Your task to perform on an android device: turn notification dots off Image 0: 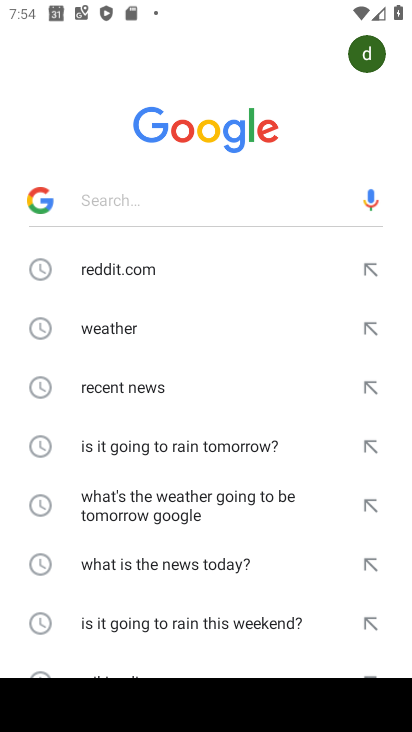
Step 0: press home button
Your task to perform on an android device: turn notification dots off Image 1: 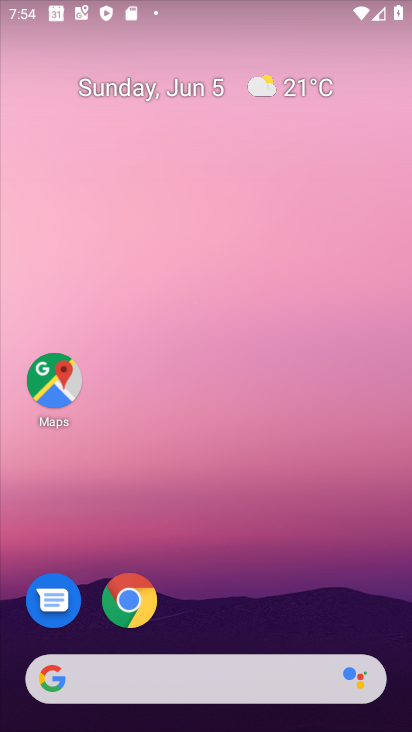
Step 1: drag from (153, 729) to (183, 97)
Your task to perform on an android device: turn notification dots off Image 2: 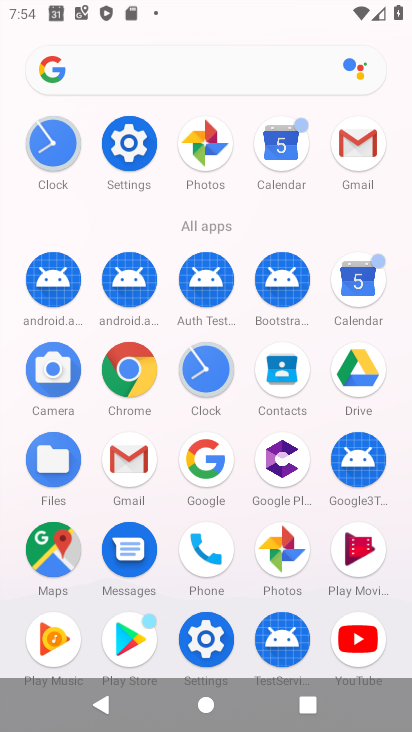
Step 2: click (221, 649)
Your task to perform on an android device: turn notification dots off Image 3: 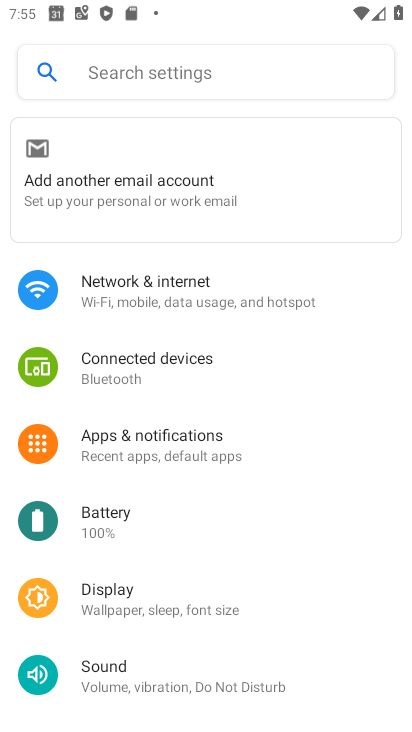
Step 3: click (174, 447)
Your task to perform on an android device: turn notification dots off Image 4: 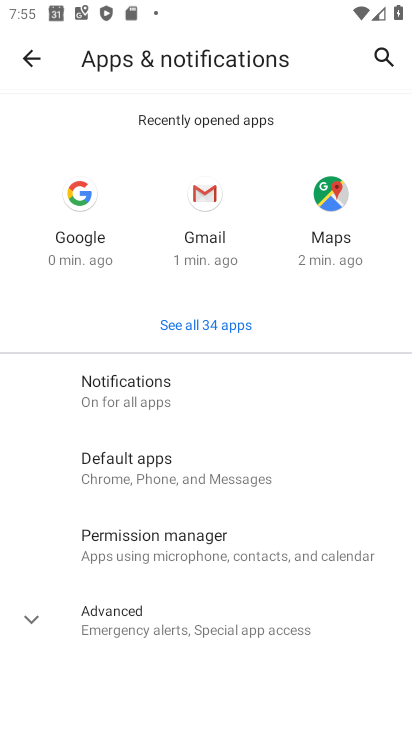
Step 4: click (158, 400)
Your task to perform on an android device: turn notification dots off Image 5: 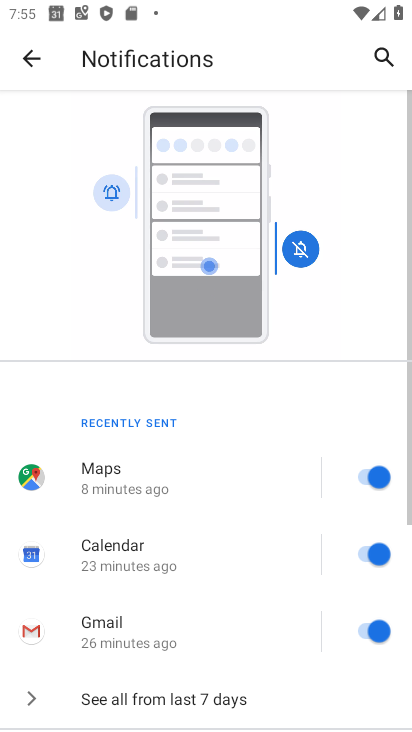
Step 5: drag from (268, 706) to (258, 291)
Your task to perform on an android device: turn notification dots off Image 6: 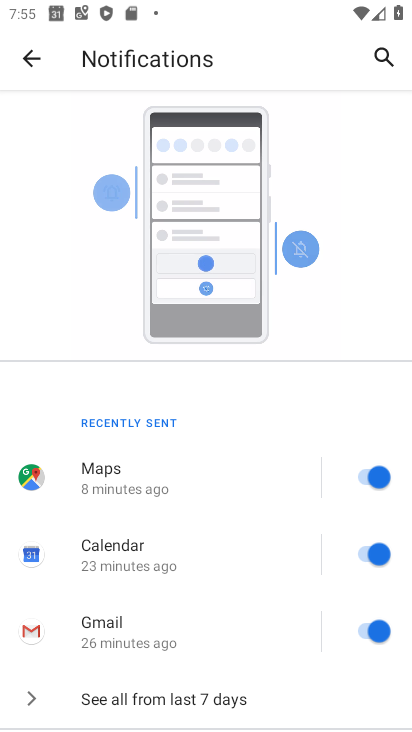
Step 6: drag from (325, 680) to (336, 289)
Your task to perform on an android device: turn notification dots off Image 7: 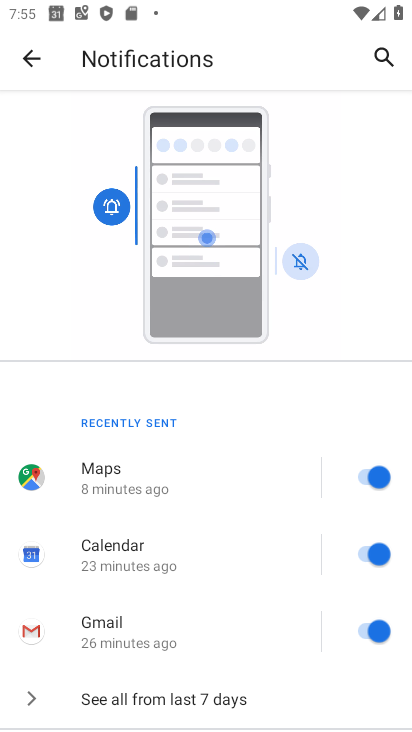
Step 7: drag from (318, 717) to (317, 221)
Your task to perform on an android device: turn notification dots off Image 8: 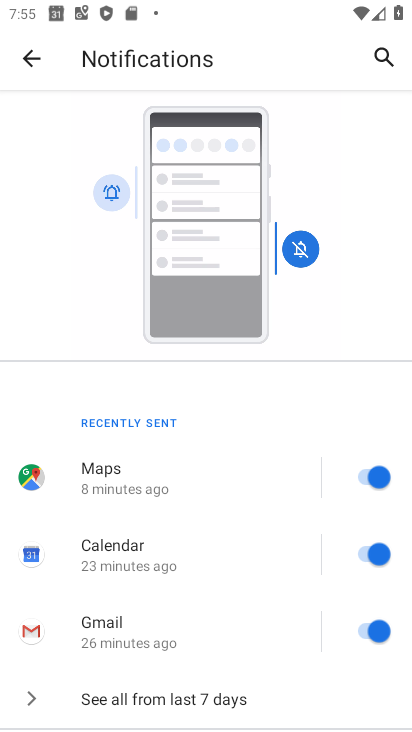
Step 8: drag from (21, 710) to (43, 271)
Your task to perform on an android device: turn notification dots off Image 9: 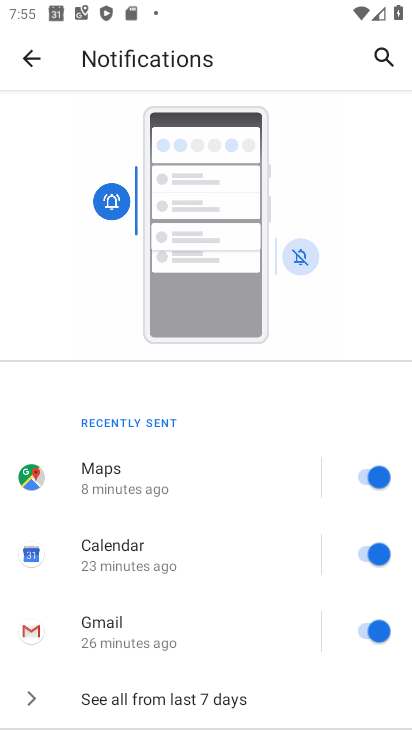
Step 9: drag from (311, 706) to (306, 216)
Your task to perform on an android device: turn notification dots off Image 10: 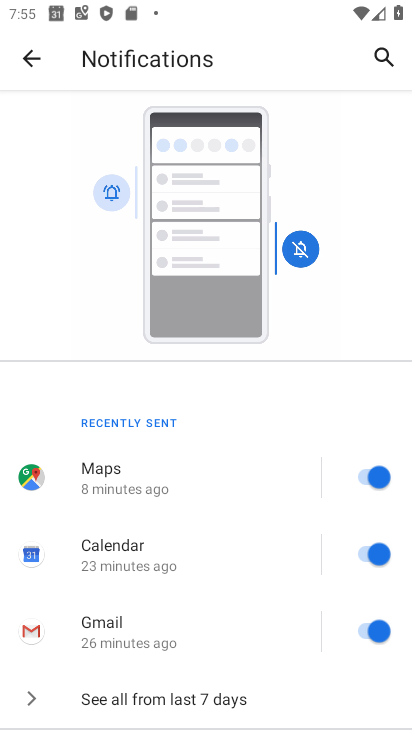
Step 10: drag from (325, 719) to (321, 157)
Your task to perform on an android device: turn notification dots off Image 11: 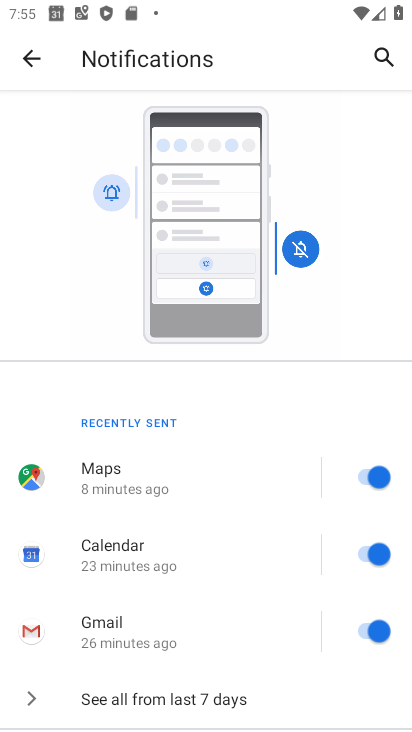
Step 11: drag from (6, 716) to (26, 241)
Your task to perform on an android device: turn notification dots off Image 12: 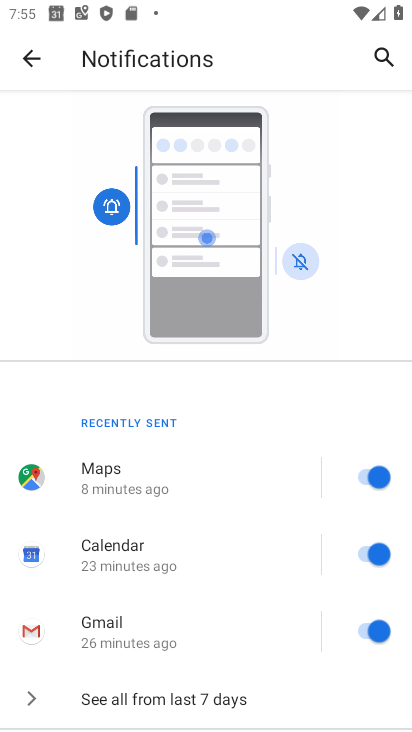
Step 12: drag from (317, 705) to (323, 248)
Your task to perform on an android device: turn notification dots off Image 13: 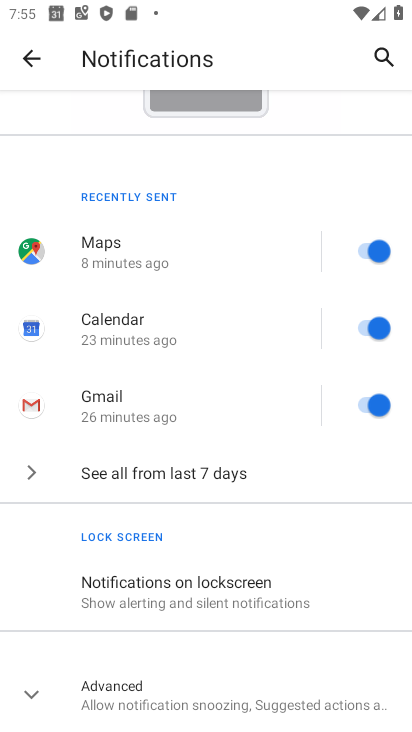
Step 13: click (178, 711)
Your task to perform on an android device: turn notification dots off Image 14: 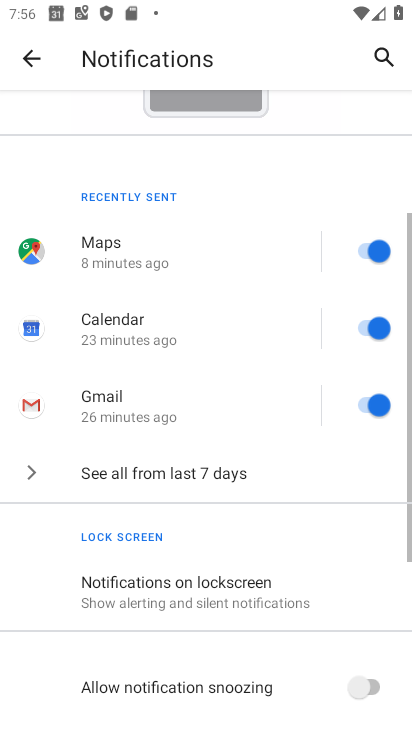
Step 14: drag from (180, 698) to (237, 292)
Your task to perform on an android device: turn notification dots off Image 15: 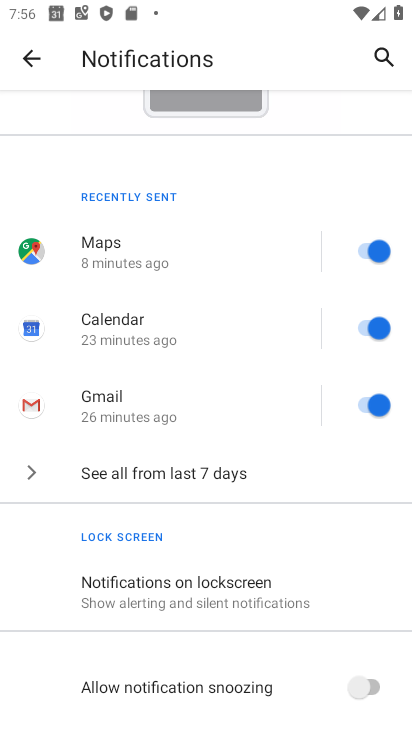
Step 15: drag from (45, 693) to (106, 127)
Your task to perform on an android device: turn notification dots off Image 16: 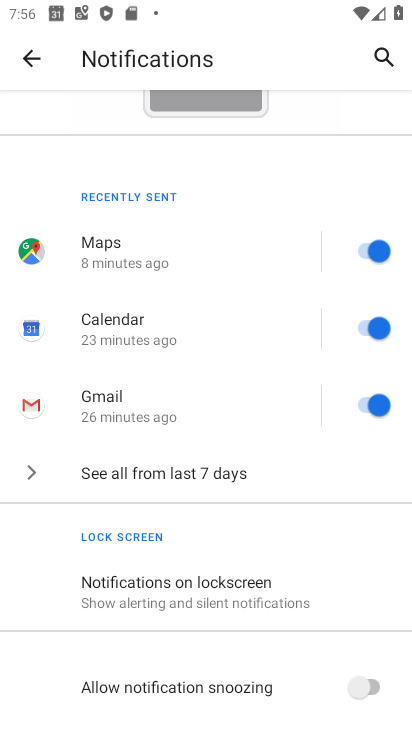
Step 16: drag from (45, 701) to (80, 333)
Your task to perform on an android device: turn notification dots off Image 17: 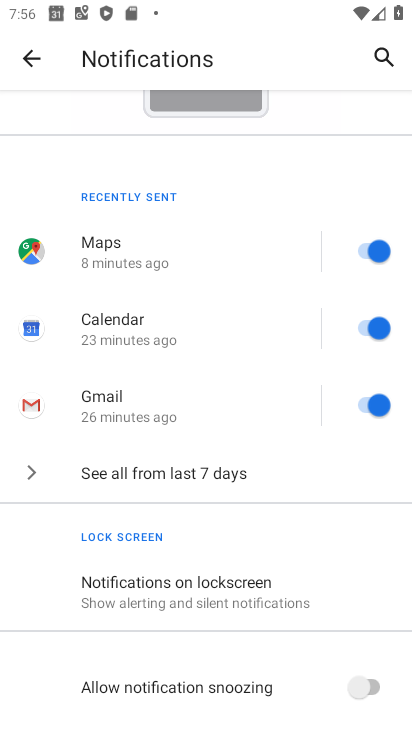
Step 17: drag from (20, 711) to (22, 310)
Your task to perform on an android device: turn notification dots off Image 18: 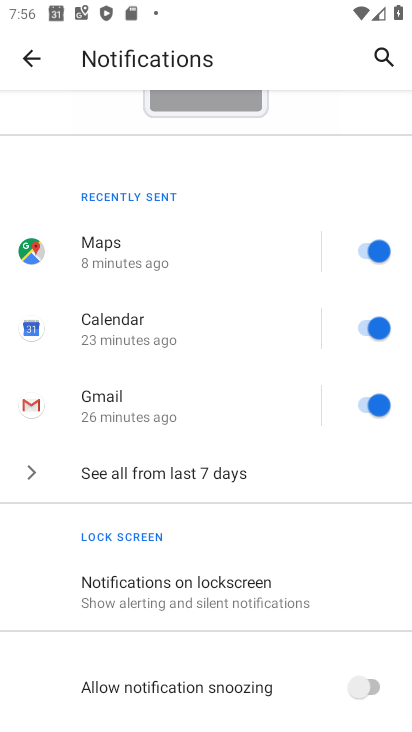
Step 18: drag from (225, 709) to (250, 371)
Your task to perform on an android device: turn notification dots off Image 19: 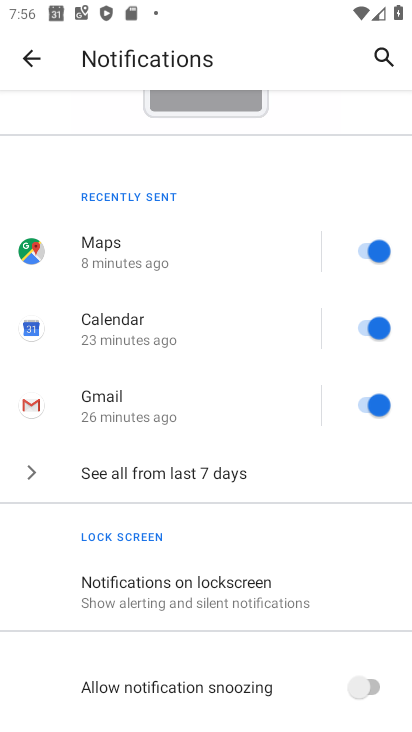
Step 19: drag from (235, 715) to (261, 391)
Your task to perform on an android device: turn notification dots off Image 20: 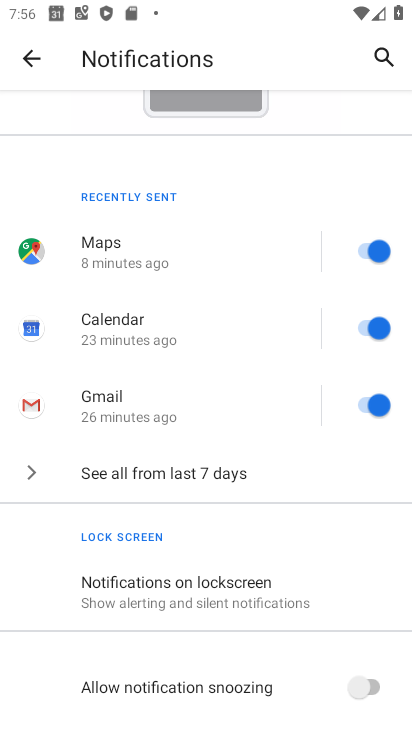
Step 20: drag from (296, 717) to (318, 371)
Your task to perform on an android device: turn notification dots off Image 21: 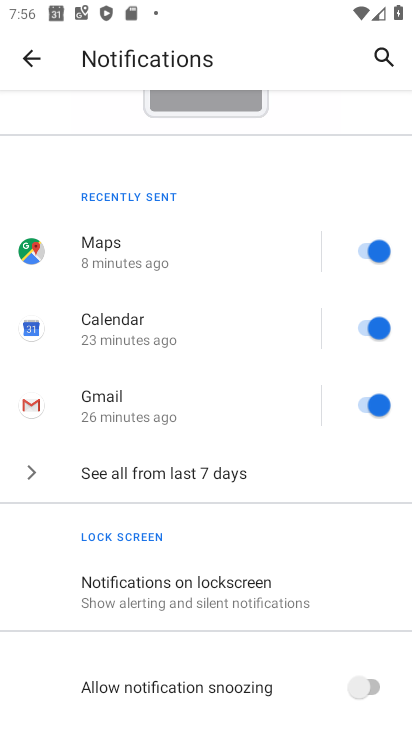
Step 21: drag from (299, 691) to (300, 379)
Your task to perform on an android device: turn notification dots off Image 22: 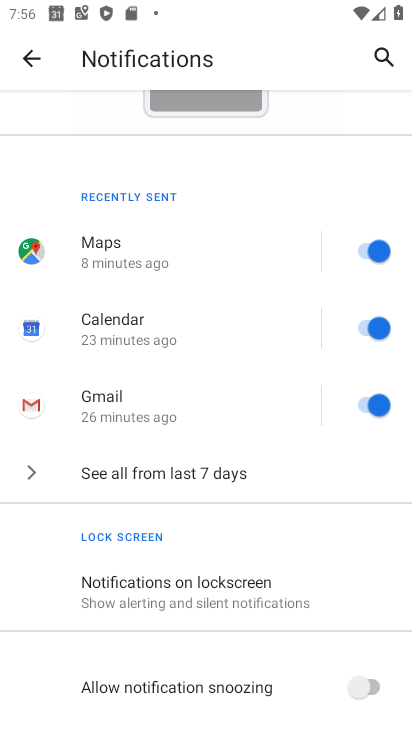
Step 22: drag from (291, 718) to (287, 309)
Your task to perform on an android device: turn notification dots off Image 23: 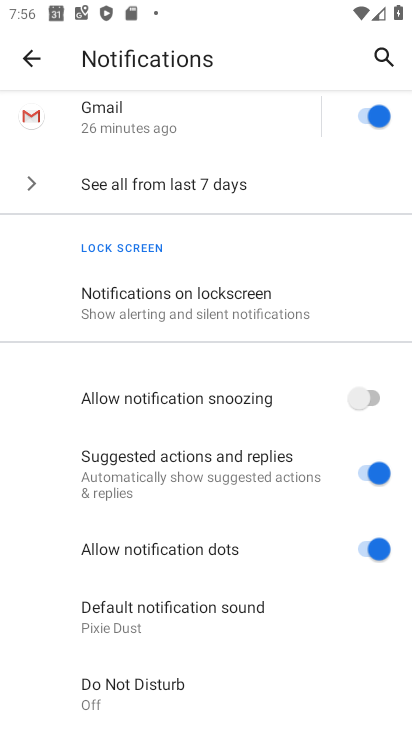
Step 23: click (379, 549)
Your task to perform on an android device: turn notification dots off Image 24: 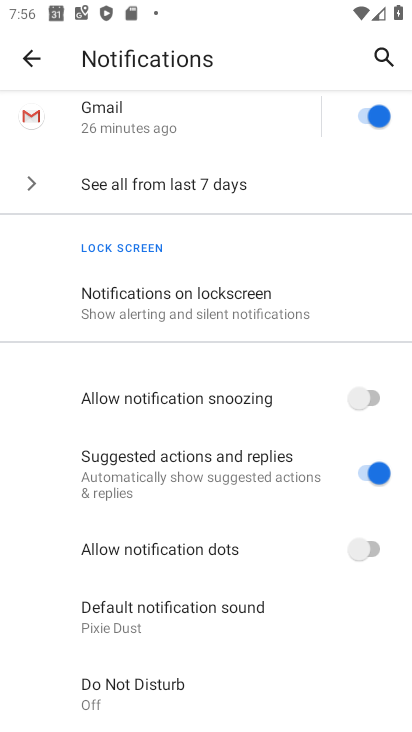
Step 24: task complete